Your task to perform on an android device: turn on showing notifications on the lock screen Image 0: 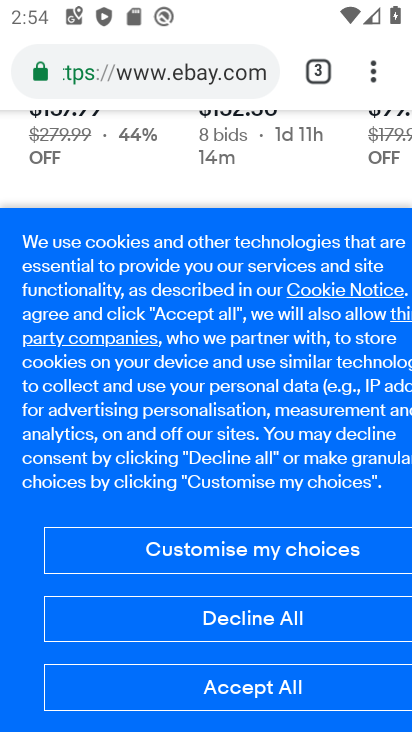
Step 0: press home button
Your task to perform on an android device: turn on showing notifications on the lock screen Image 1: 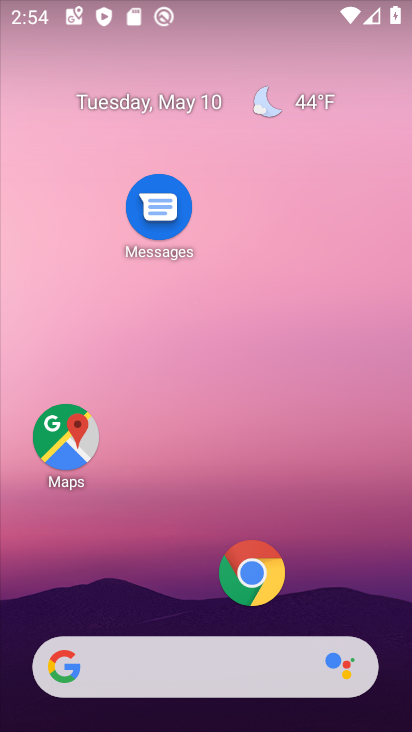
Step 1: drag from (173, 607) to (274, 178)
Your task to perform on an android device: turn on showing notifications on the lock screen Image 2: 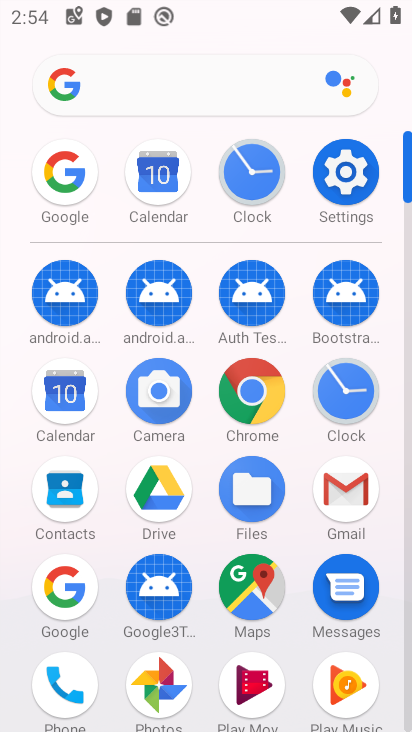
Step 2: click (340, 185)
Your task to perform on an android device: turn on showing notifications on the lock screen Image 3: 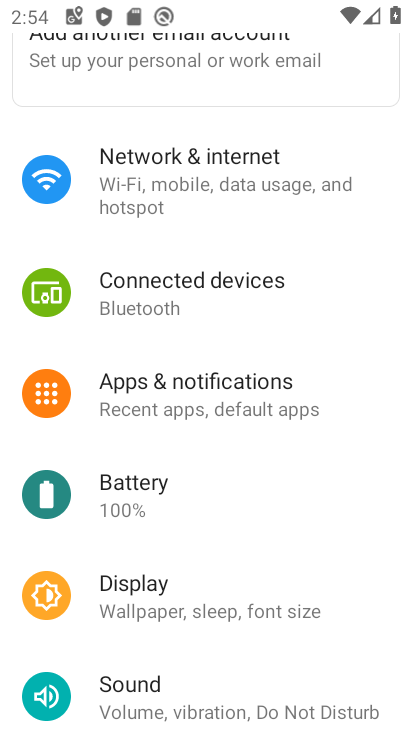
Step 3: click (232, 408)
Your task to perform on an android device: turn on showing notifications on the lock screen Image 4: 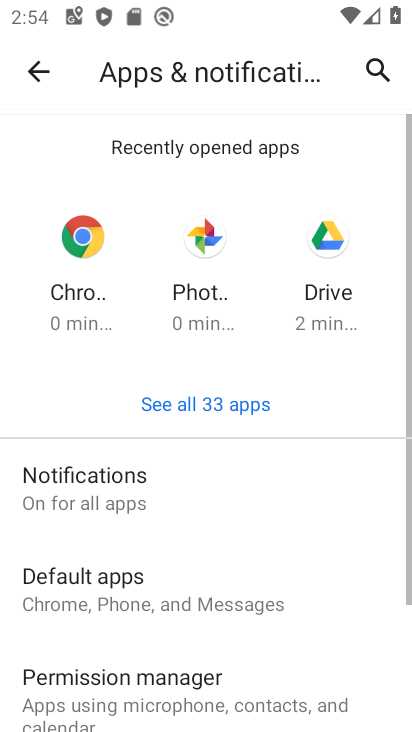
Step 4: drag from (197, 633) to (222, 427)
Your task to perform on an android device: turn on showing notifications on the lock screen Image 5: 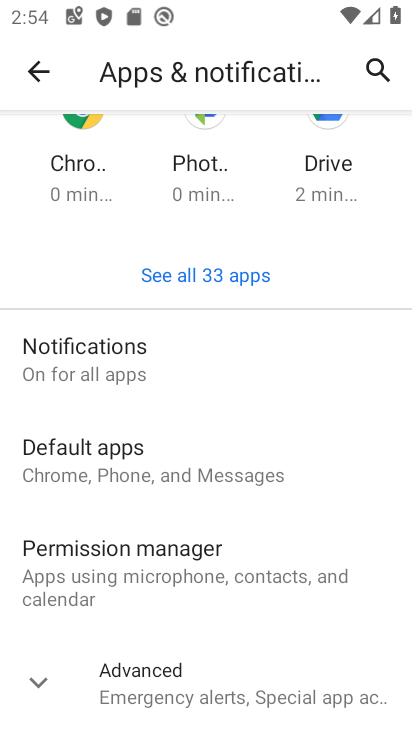
Step 5: click (154, 381)
Your task to perform on an android device: turn on showing notifications on the lock screen Image 6: 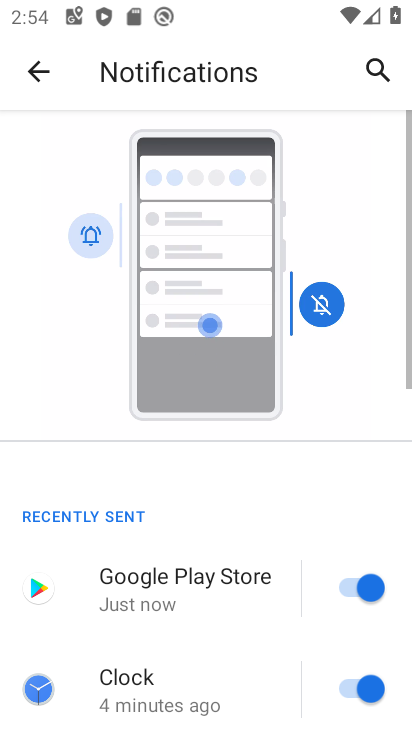
Step 6: drag from (209, 606) to (271, 294)
Your task to perform on an android device: turn on showing notifications on the lock screen Image 7: 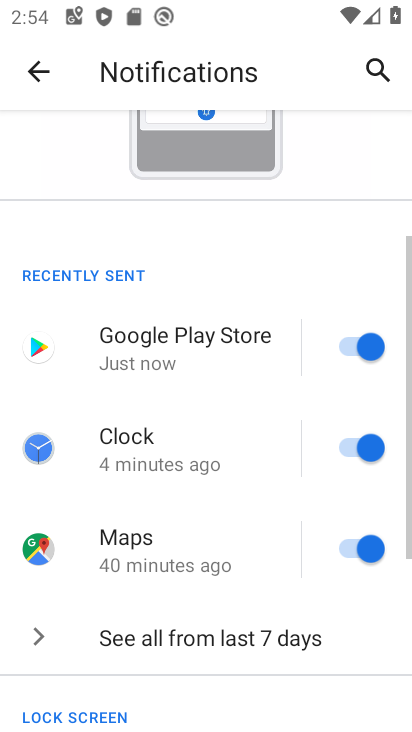
Step 7: drag from (239, 629) to (279, 349)
Your task to perform on an android device: turn on showing notifications on the lock screen Image 8: 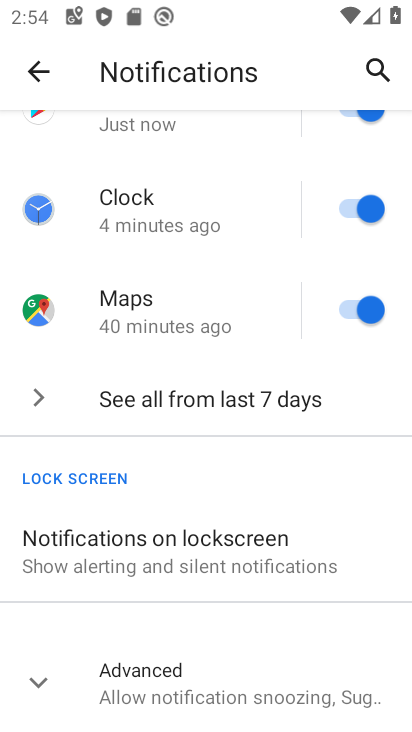
Step 8: click (223, 556)
Your task to perform on an android device: turn on showing notifications on the lock screen Image 9: 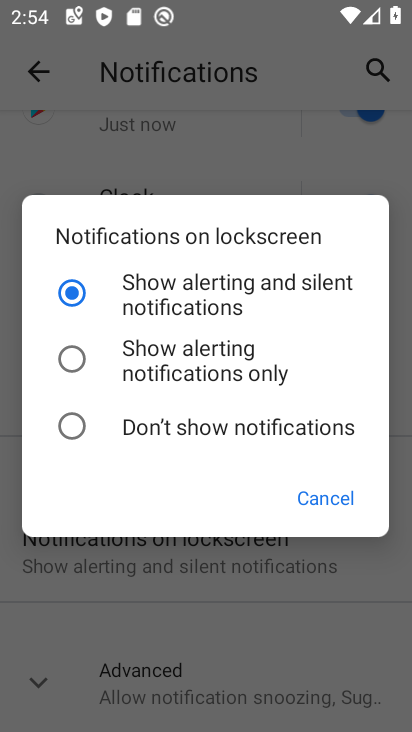
Step 9: task complete